Your task to perform on an android device: Search for vegetarian restaurants on Maps Image 0: 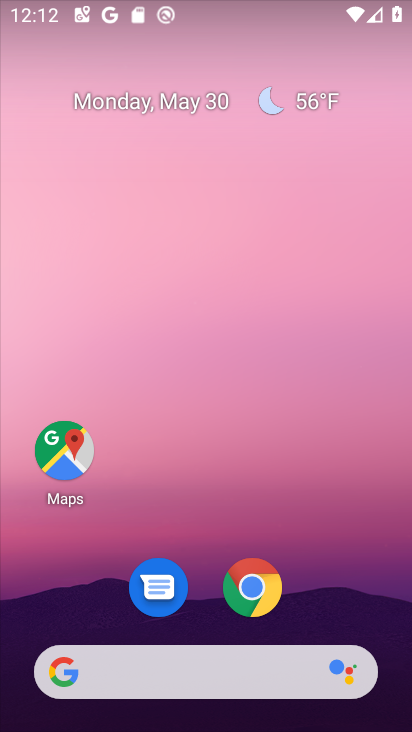
Step 0: click (65, 441)
Your task to perform on an android device: Search for vegetarian restaurants on Maps Image 1: 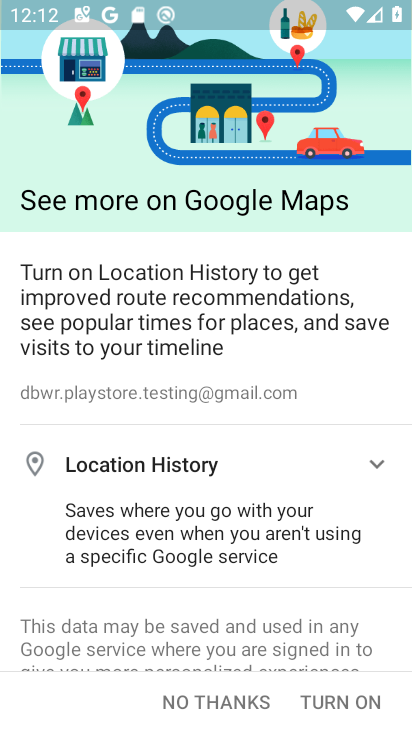
Step 1: click (196, 691)
Your task to perform on an android device: Search for vegetarian restaurants on Maps Image 2: 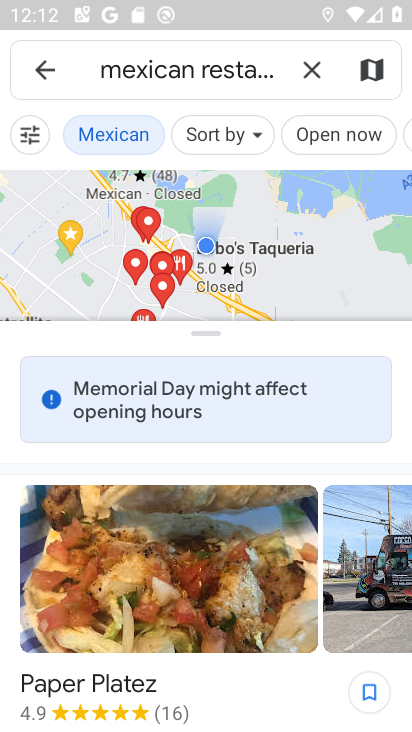
Step 2: click (314, 65)
Your task to perform on an android device: Search for vegetarian restaurants on Maps Image 3: 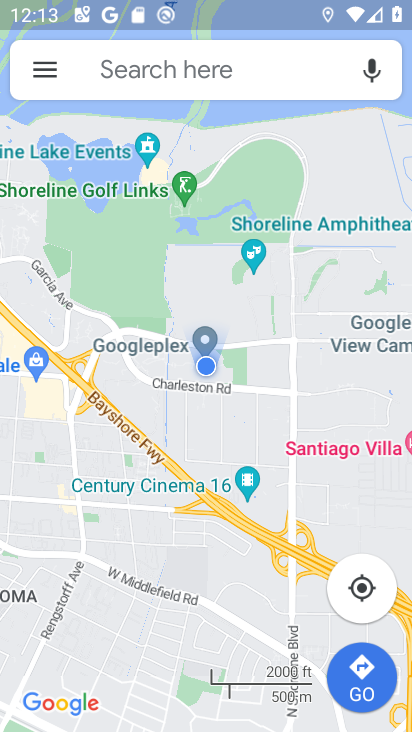
Step 3: click (199, 55)
Your task to perform on an android device: Search for vegetarian restaurants on Maps Image 4: 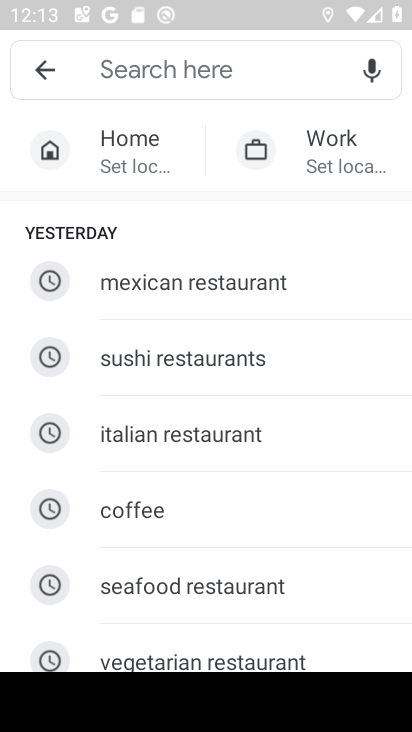
Step 4: click (281, 656)
Your task to perform on an android device: Search for vegetarian restaurants on Maps Image 5: 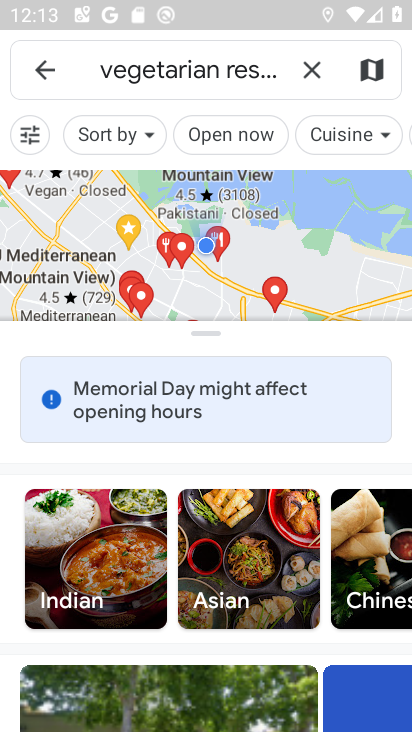
Step 5: task complete